Your task to perform on an android device: Open settings Image 0: 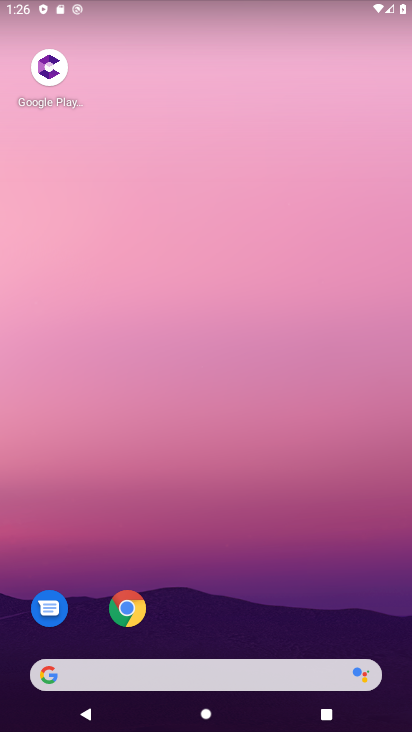
Step 0: drag from (197, 650) to (293, 150)
Your task to perform on an android device: Open settings Image 1: 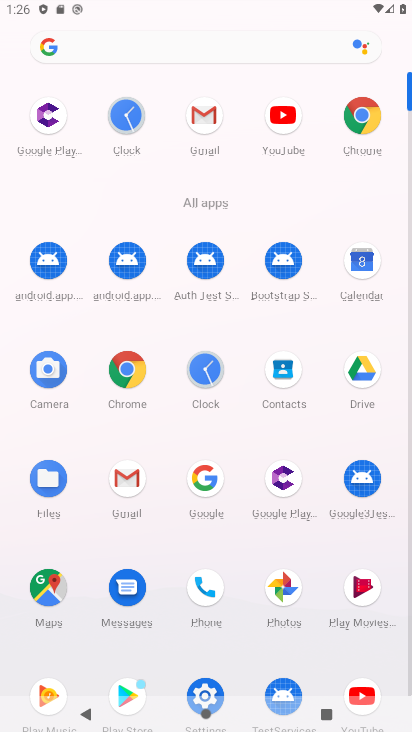
Step 1: click (197, 696)
Your task to perform on an android device: Open settings Image 2: 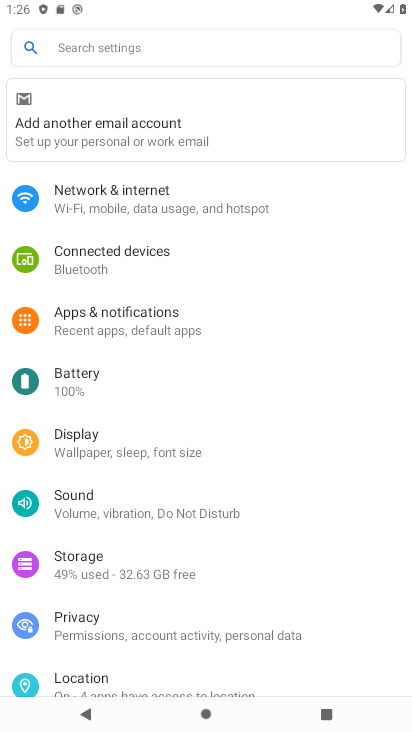
Step 2: task complete